Your task to perform on an android device: Check the news Image 0: 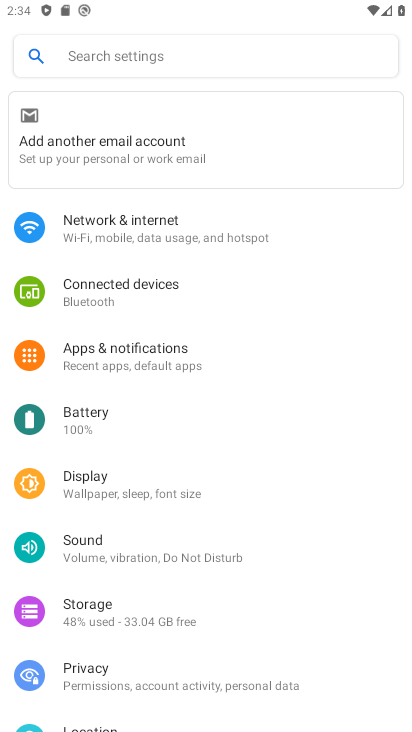
Step 0: press home button
Your task to perform on an android device: Check the news Image 1: 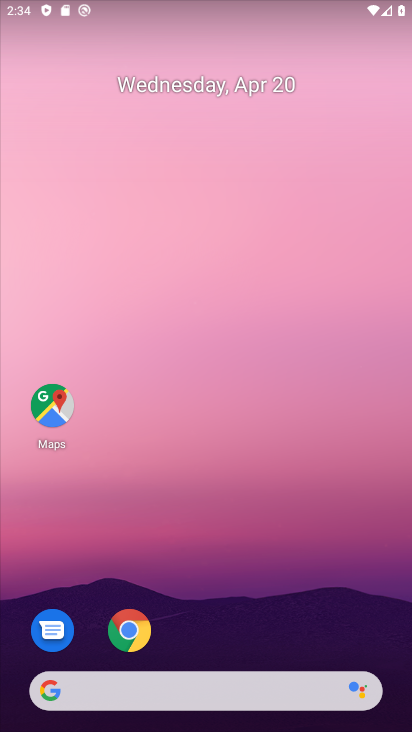
Step 1: click (241, 695)
Your task to perform on an android device: Check the news Image 2: 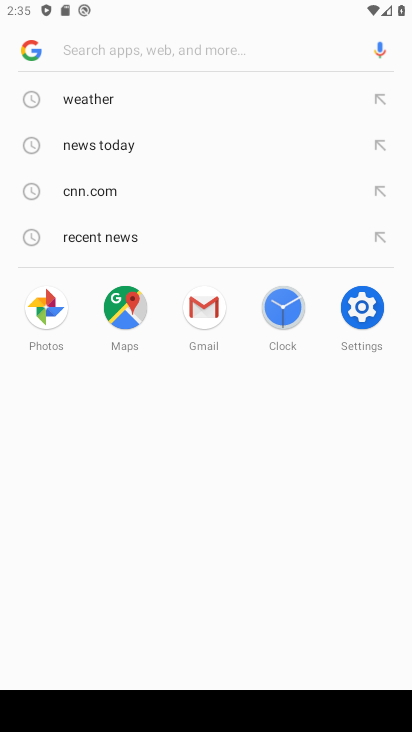
Step 2: click (146, 235)
Your task to perform on an android device: Check the news Image 3: 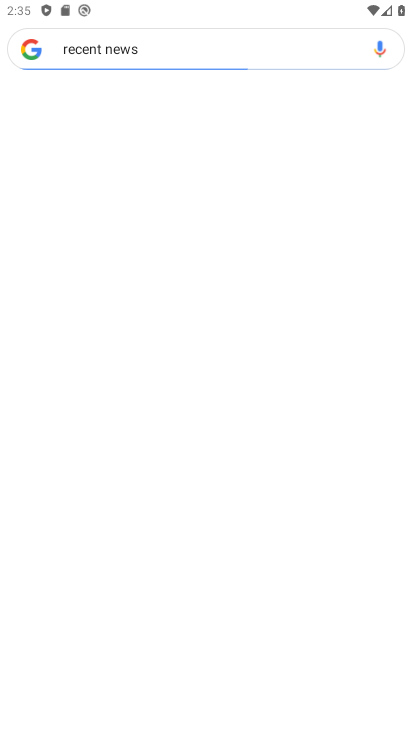
Step 3: click (92, 53)
Your task to perform on an android device: Check the news Image 4: 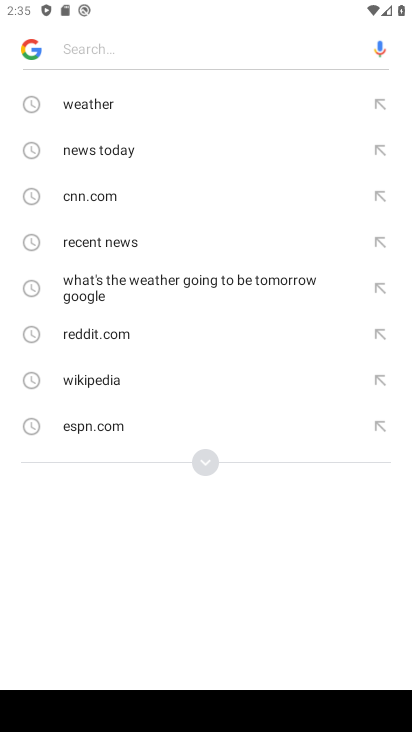
Step 4: type "news"
Your task to perform on an android device: Check the news Image 5: 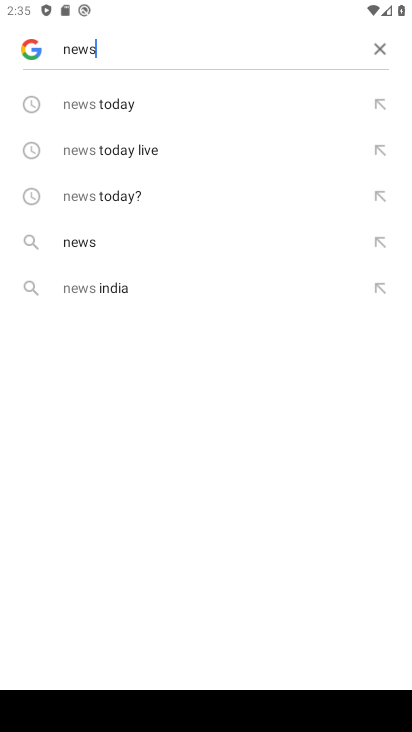
Step 5: click (158, 248)
Your task to perform on an android device: Check the news Image 6: 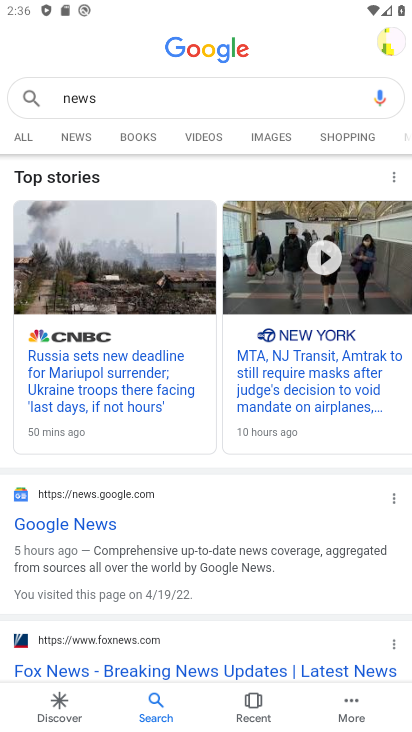
Step 6: task complete